Your task to perform on an android device: open app "Grab" Image 0: 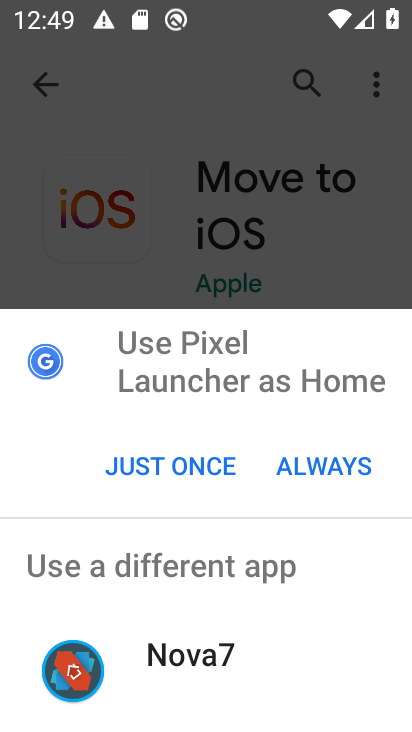
Step 0: click (329, 453)
Your task to perform on an android device: open app "Grab" Image 1: 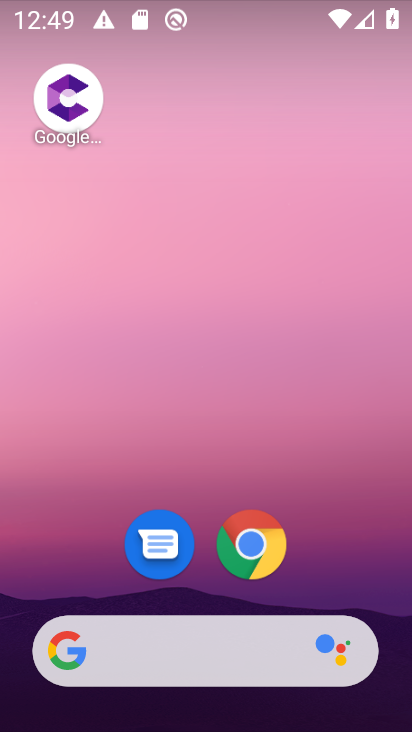
Step 1: drag from (329, 276) to (283, 108)
Your task to perform on an android device: open app "Grab" Image 2: 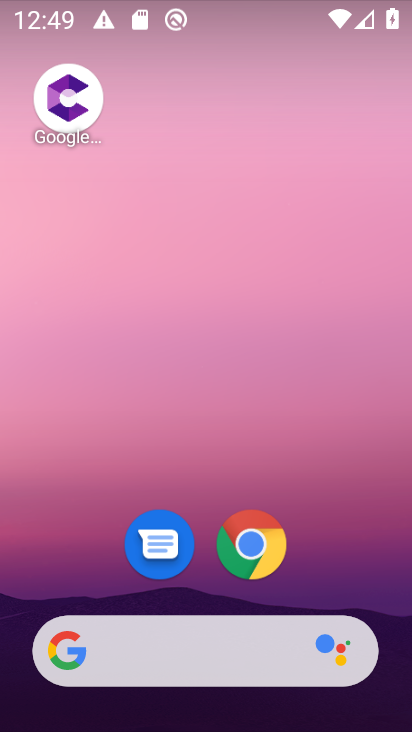
Step 2: drag from (365, 613) to (257, 86)
Your task to perform on an android device: open app "Grab" Image 3: 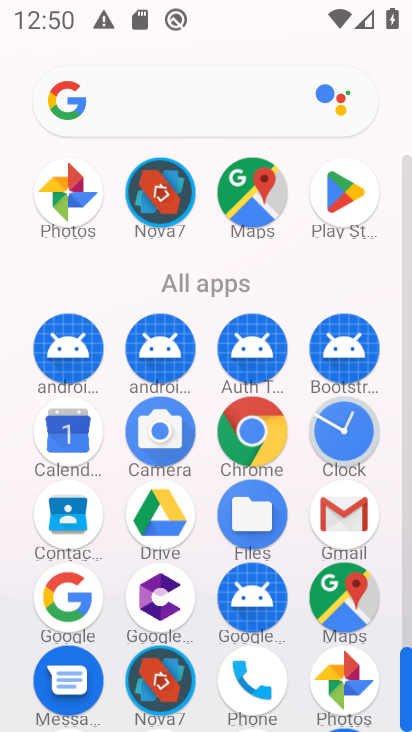
Step 3: click (345, 205)
Your task to perform on an android device: open app "Grab" Image 4: 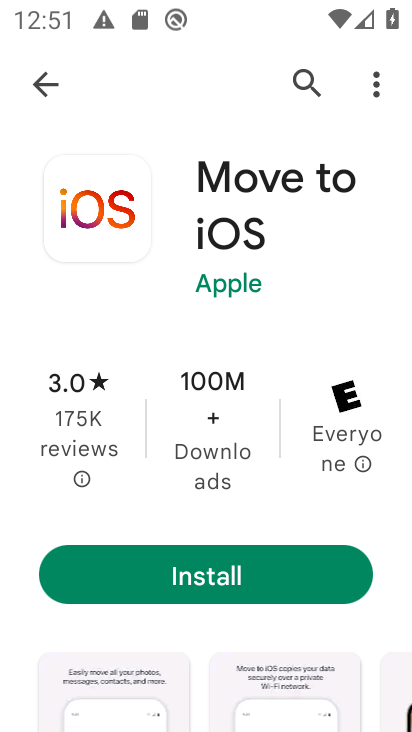
Step 4: press back button
Your task to perform on an android device: open app "Grab" Image 5: 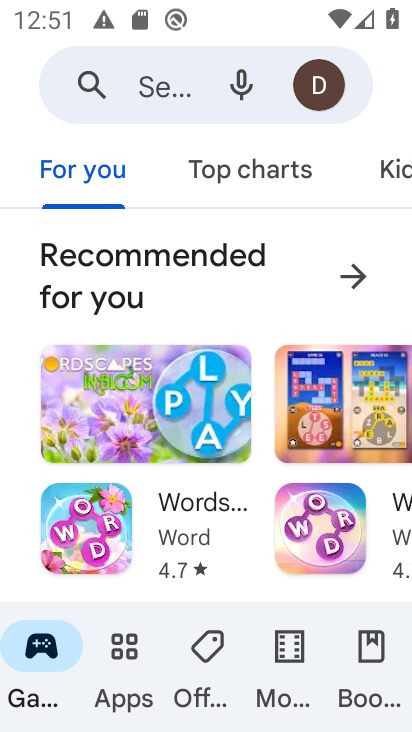
Step 5: click (150, 80)
Your task to perform on an android device: open app "Grab" Image 6: 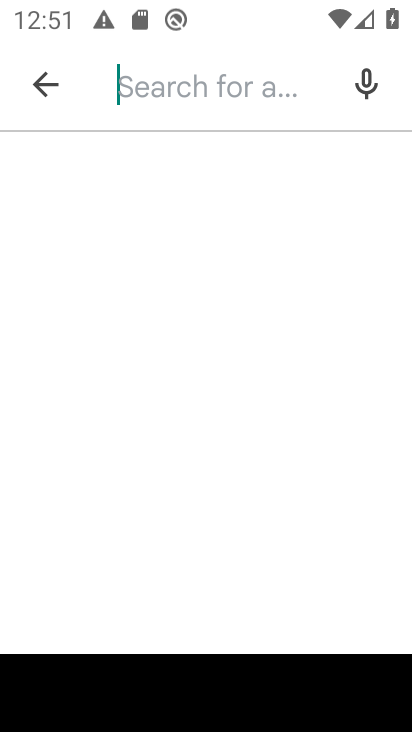
Step 6: type "Grab"
Your task to perform on an android device: open app "Grab" Image 7: 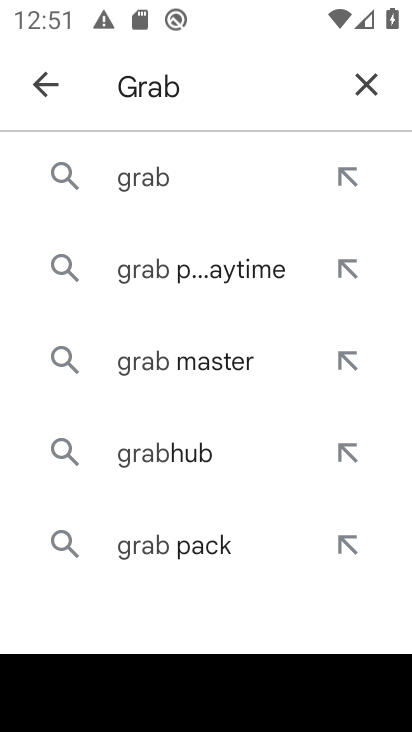
Step 7: click (168, 182)
Your task to perform on an android device: open app "Grab" Image 8: 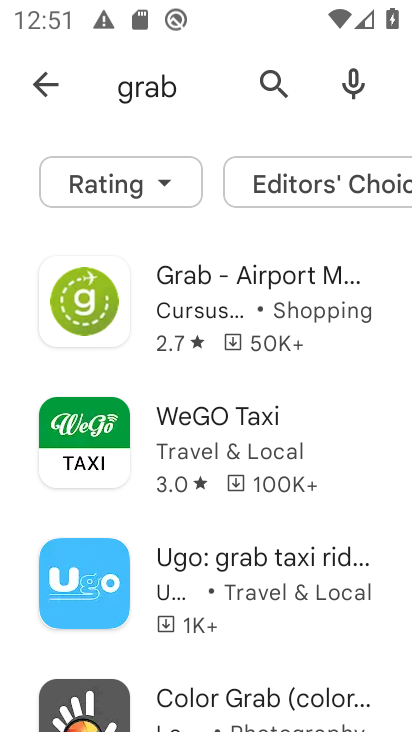
Step 8: task complete